Your task to perform on an android device: Show me popular games on the Play Store Image 0: 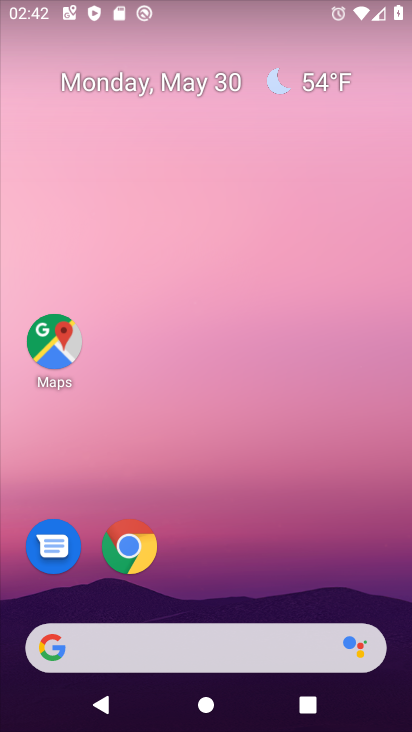
Step 0: press home button
Your task to perform on an android device: Show me popular games on the Play Store Image 1: 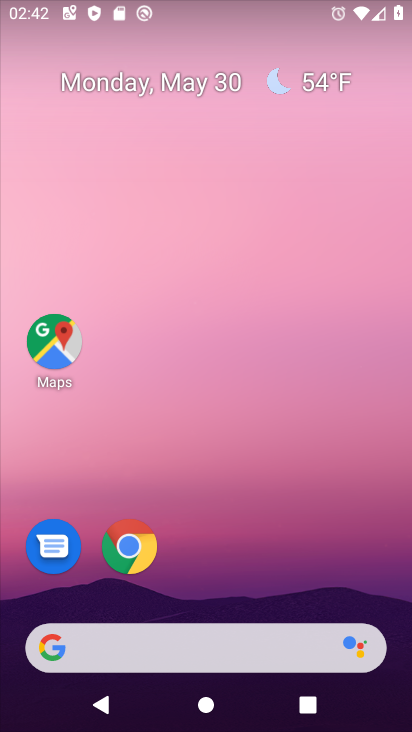
Step 1: drag from (235, 612) to (265, 118)
Your task to perform on an android device: Show me popular games on the Play Store Image 2: 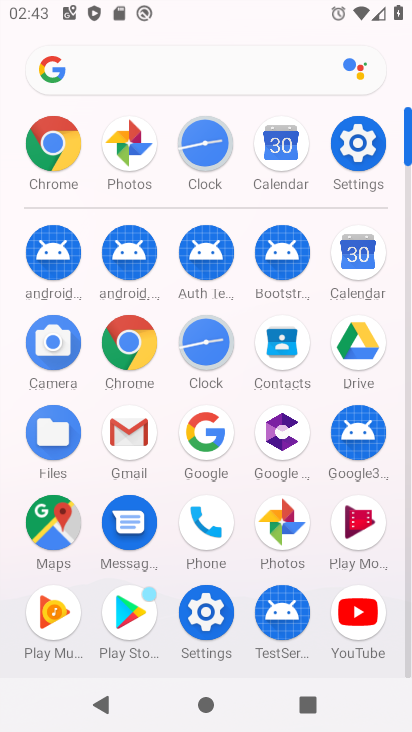
Step 2: click (125, 605)
Your task to perform on an android device: Show me popular games on the Play Store Image 3: 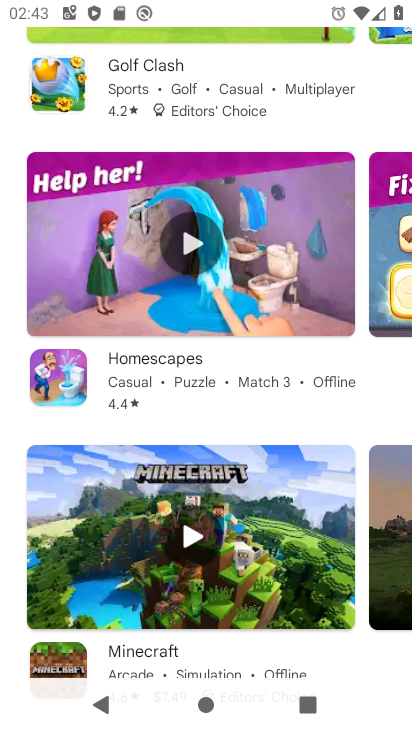
Step 3: task complete